Your task to perform on an android device: Open the phone app and click the voicemail tab. Image 0: 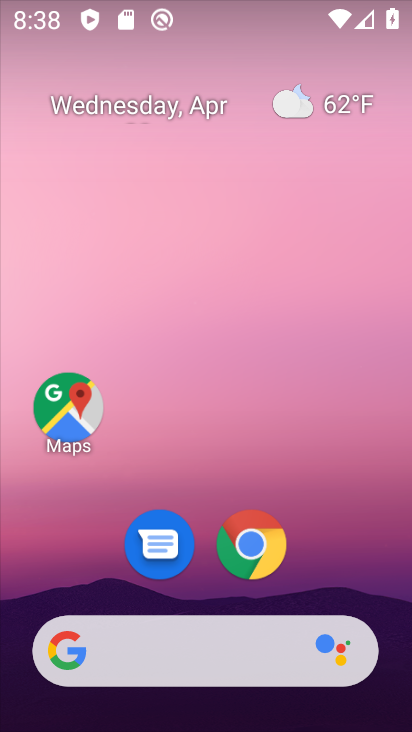
Step 0: drag from (361, 556) to (262, 111)
Your task to perform on an android device: Open the phone app and click the voicemail tab. Image 1: 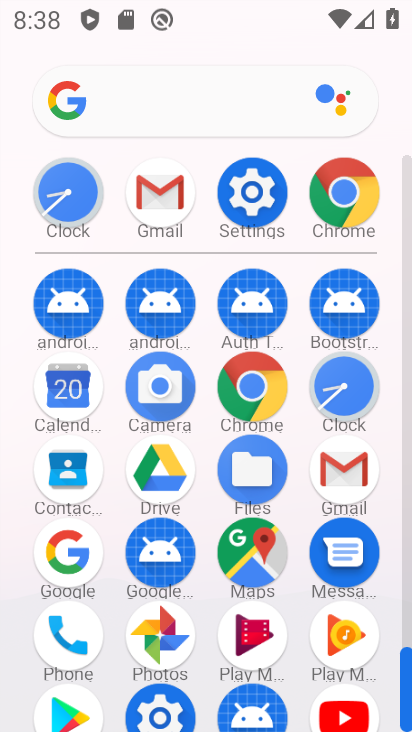
Step 1: click (69, 641)
Your task to perform on an android device: Open the phone app and click the voicemail tab. Image 2: 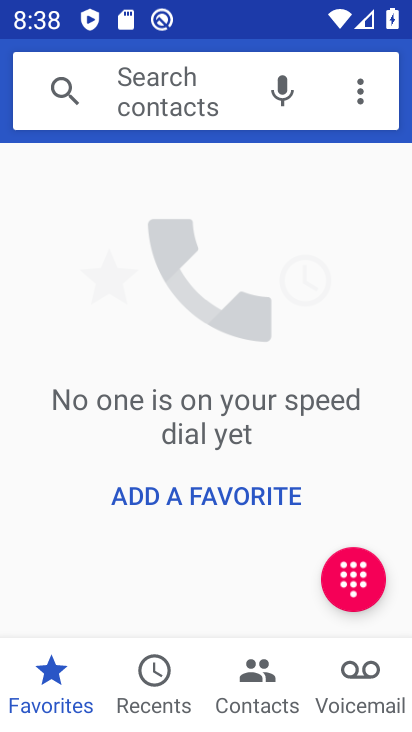
Step 2: click (354, 688)
Your task to perform on an android device: Open the phone app and click the voicemail tab. Image 3: 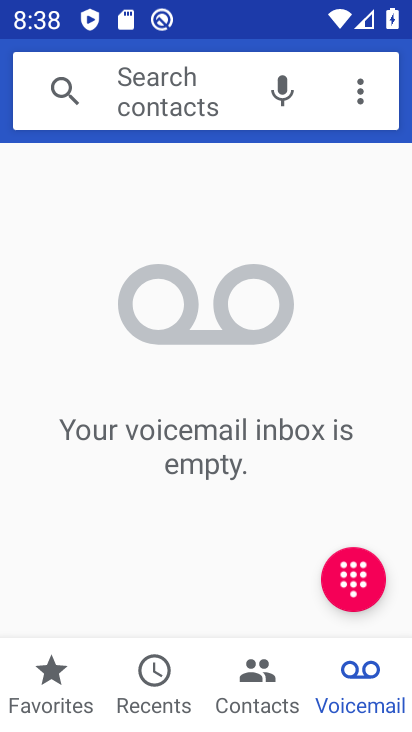
Step 3: task complete